Your task to perform on an android device: turn on bluetooth scan Image 0: 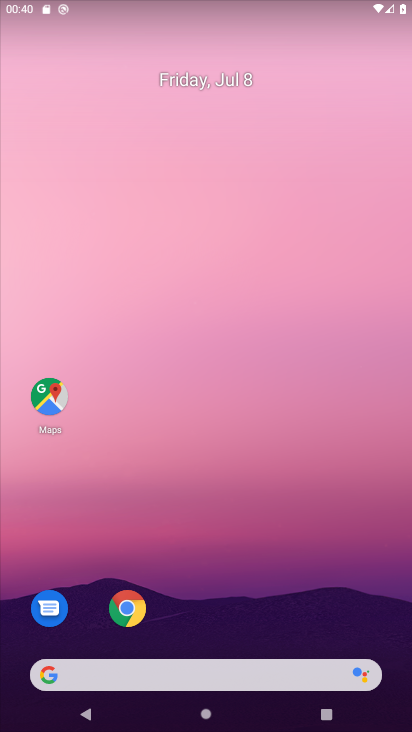
Step 0: drag from (239, 587) to (404, 243)
Your task to perform on an android device: turn on bluetooth scan Image 1: 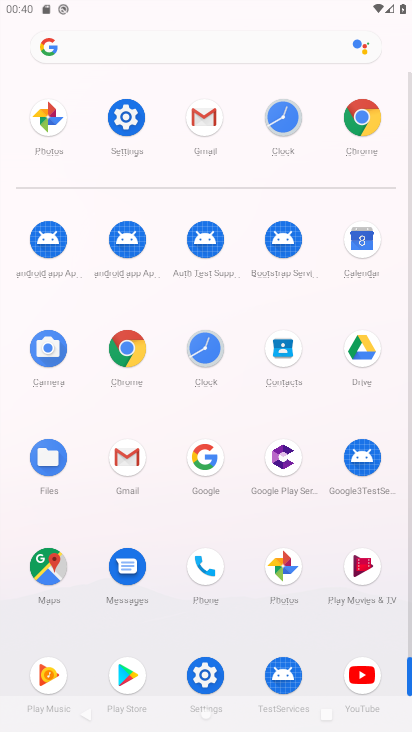
Step 1: click (138, 112)
Your task to perform on an android device: turn on bluetooth scan Image 2: 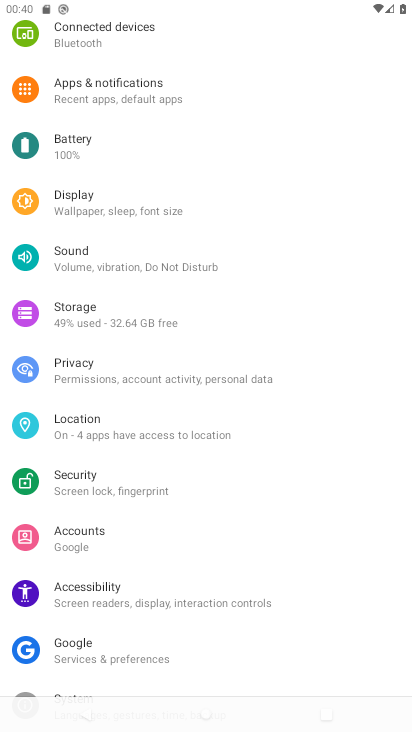
Step 2: drag from (199, 78) to (218, 630)
Your task to perform on an android device: turn on bluetooth scan Image 3: 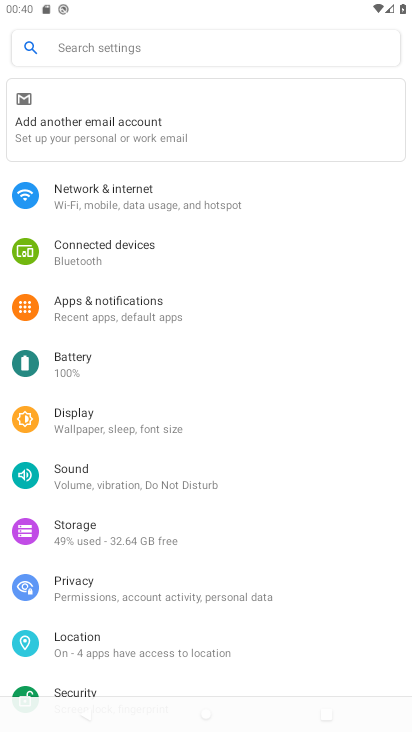
Step 3: click (198, 35)
Your task to perform on an android device: turn on bluetooth scan Image 4: 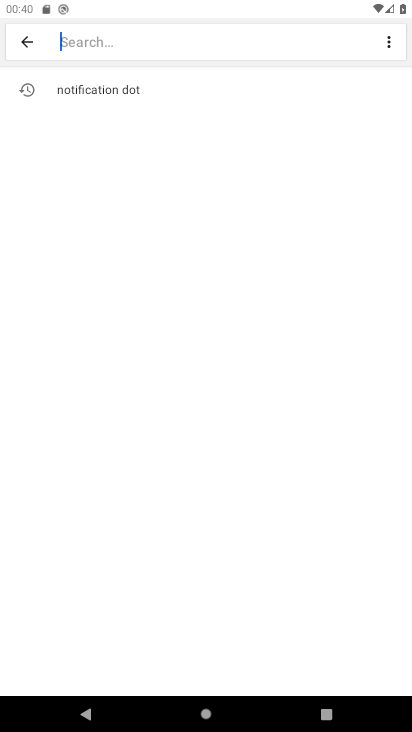
Step 4: type "bluetooth scan "
Your task to perform on an android device: turn on bluetooth scan Image 5: 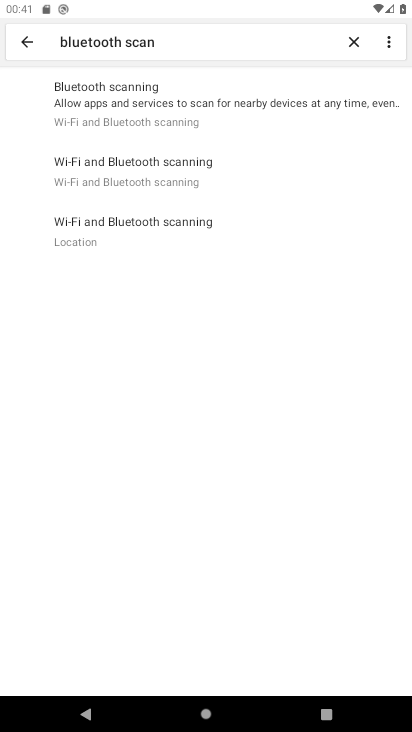
Step 5: click (176, 84)
Your task to perform on an android device: turn on bluetooth scan Image 6: 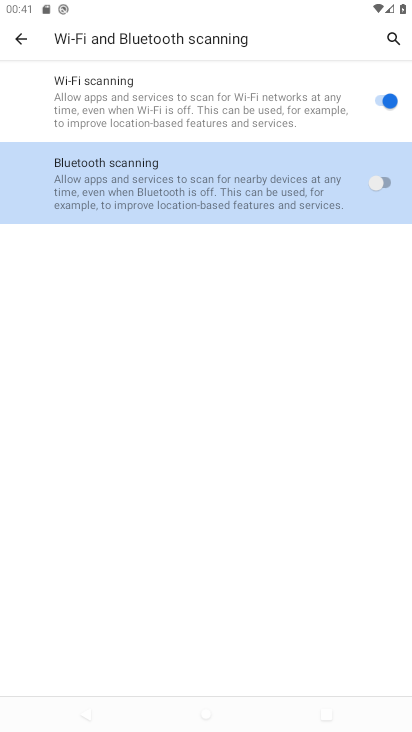
Step 6: click (376, 174)
Your task to perform on an android device: turn on bluetooth scan Image 7: 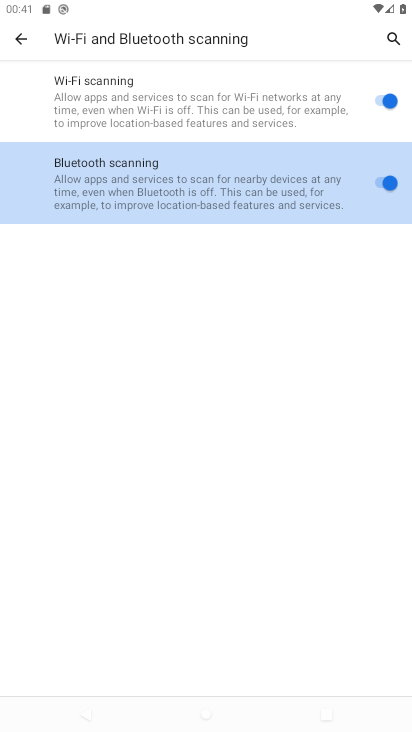
Step 7: task complete